Your task to perform on an android device: allow notifications from all sites in the chrome app Image 0: 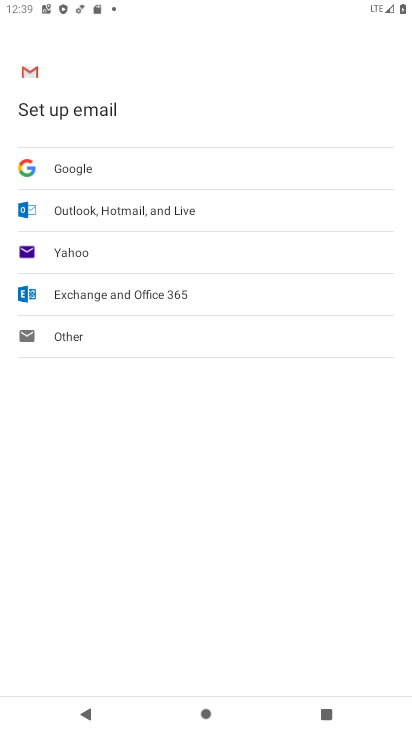
Step 0: press home button
Your task to perform on an android device: allow notifications from all sites in the chrome app Image 1: 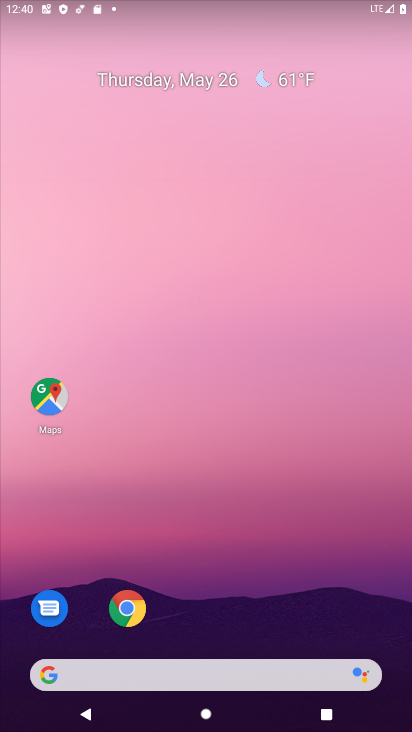
Step 1: click (124, 608)
Your task to perform on an android device: allow notifications from all sites in the chrome app Image 2: 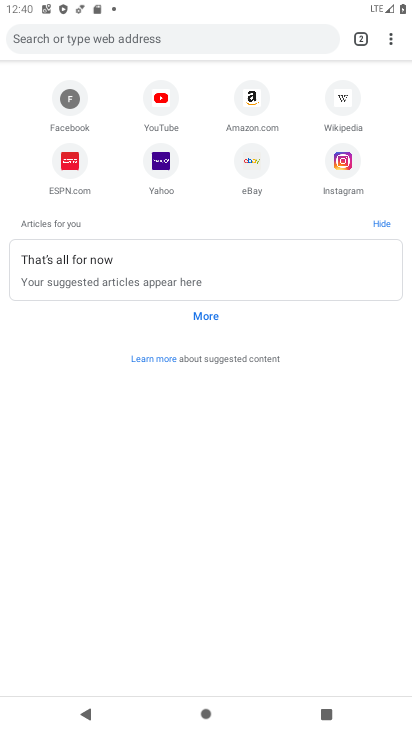
Step 2: click (390, 42)
Your task to perform on an android device: allow notifications from all sites in the chrome app Image 3: 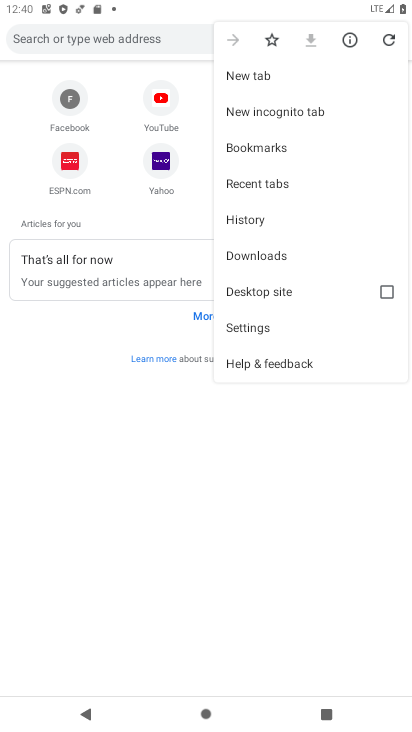
Step 3: click (260, 332)
Your task to perform on an android device: allow notifications from all sites in the chrome app Image 4: 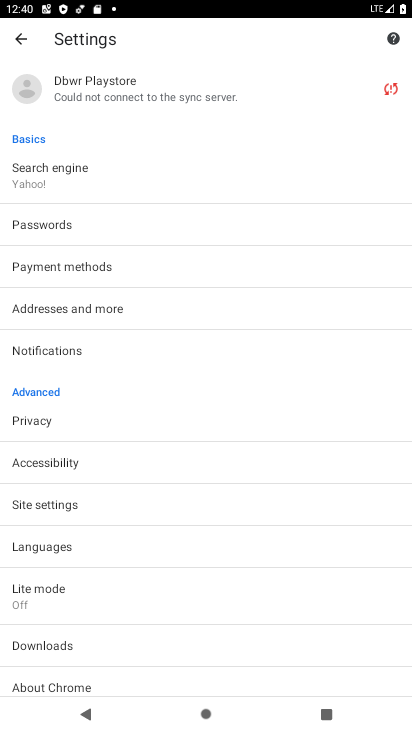
Step 4: click (59, 506)
Your task to perform on an android device: allow notifications from all sites in the chrome app Image 5: 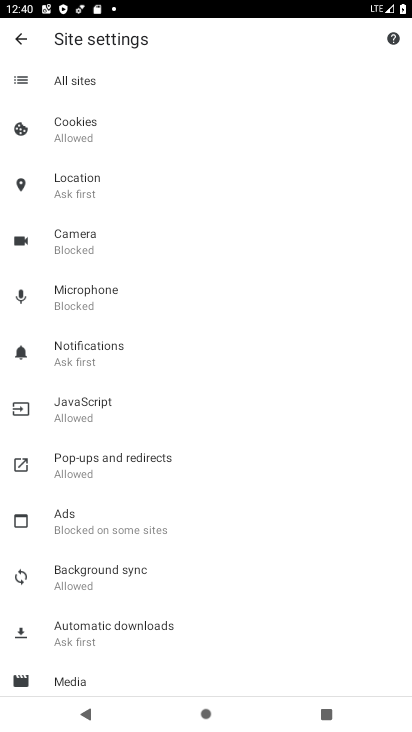
Step 5: click (102, 365)
Your task to perform on an android device: allow notifications from all sites in the chrome app Image 6: 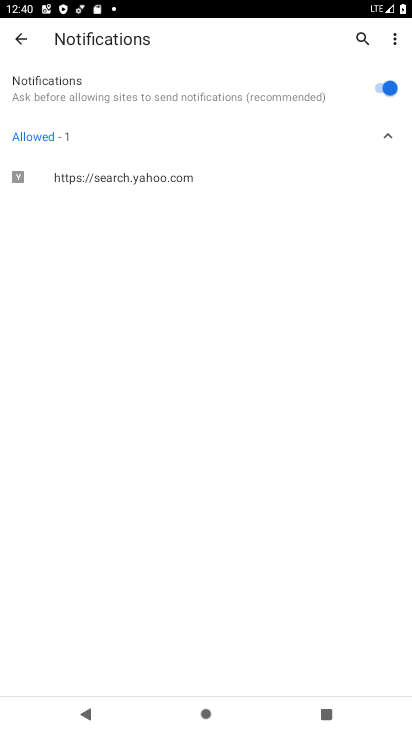
Step 6: task complete